Your task to perform on an android device: Open Google Image 0: 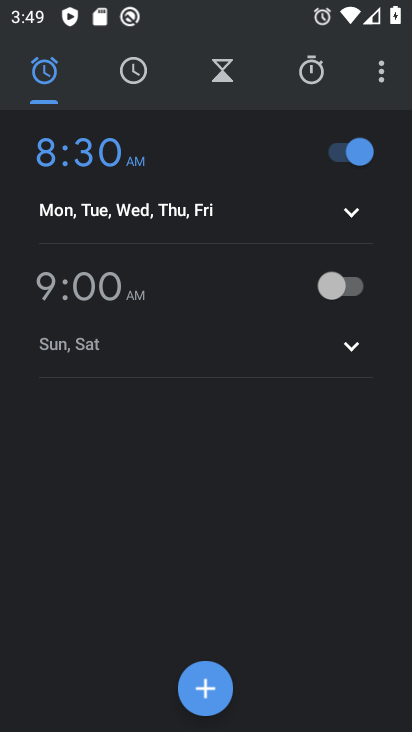
Step 0: press home button
Your task to perform on an android device: Open Google Image 1: 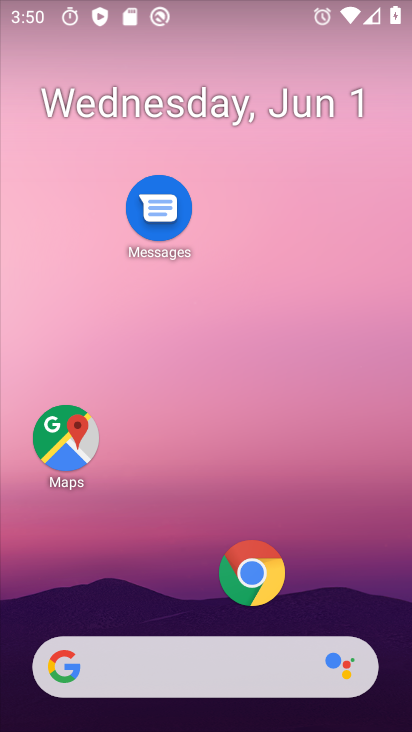
Step 1: drag from (201, 617) to (208, 329)
Your task to perform on an android device: Open Google Image 2: 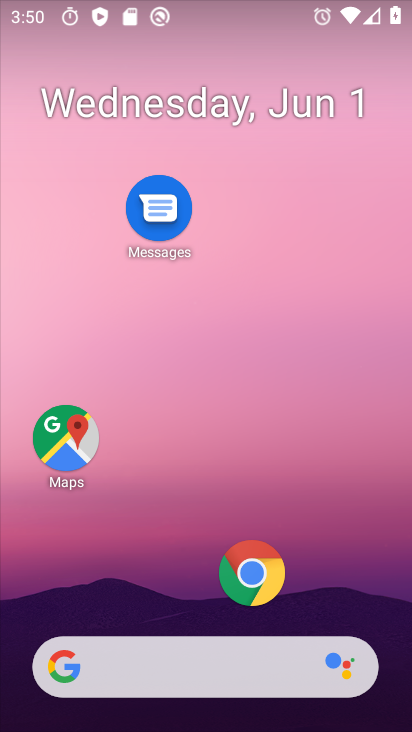
Step 2: drag from (180, 616) to (217, 167)
Your task to perform on an android device: Open Google Image 3: 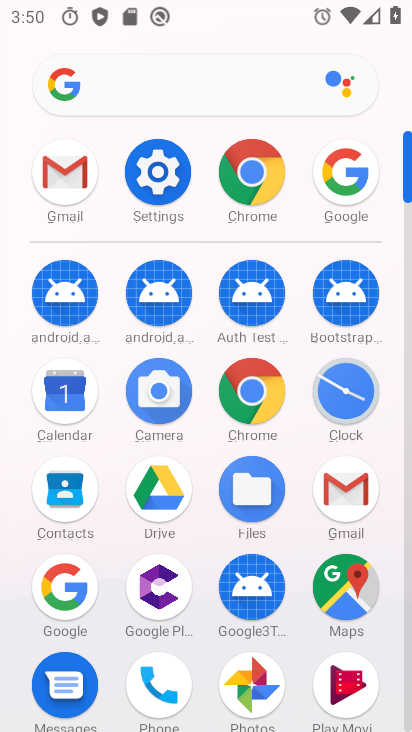
Step 3: click (341, 200)
Your task to perform on an android device: Open Google Image 4: 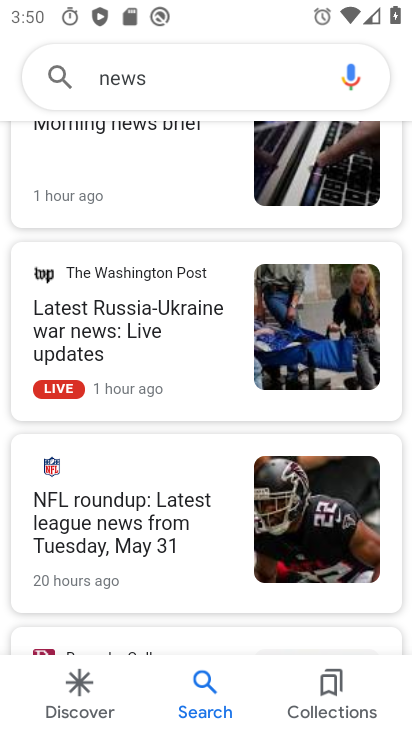
Step 4: task complete